Your task to perform on an android device: Go to network settings Image 0: 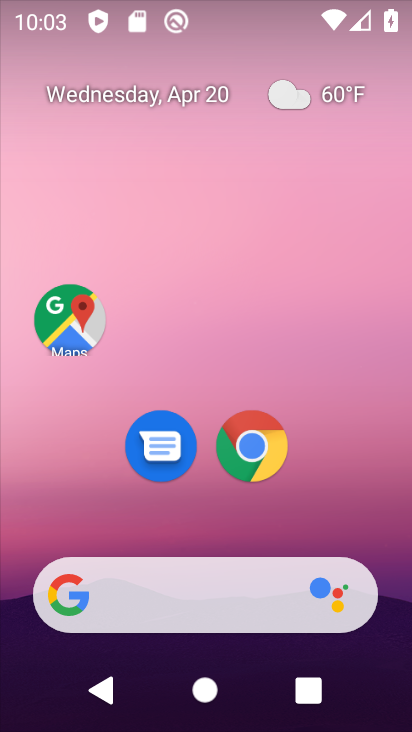
Step 0: drag from (373, 545) to (193, 11)
Your task to perform on an android device: Go to network settings Image 1: 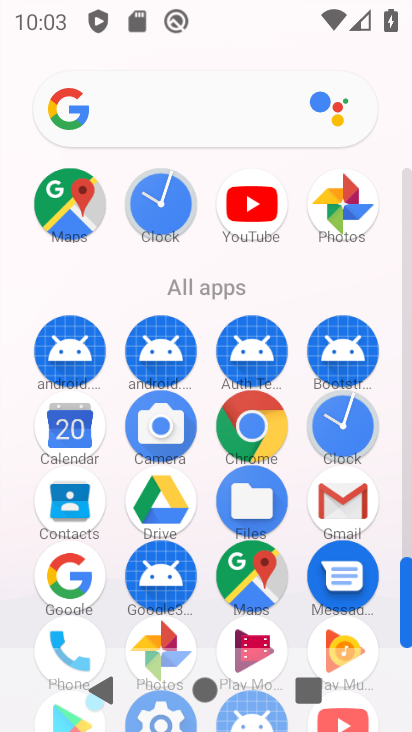
Step 1: drag from (12, 576) to (0, 240)
Your task to perform on an android device: Go to network settings Image 2: 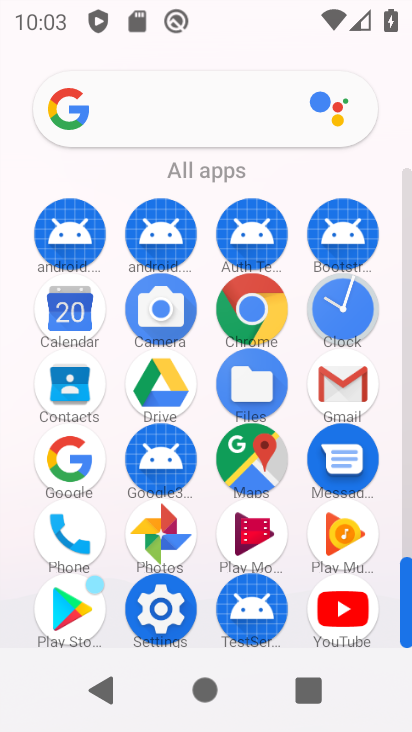
Step 2: click (161, 607)
Your task to perform on an android device: Go to network settings Image 3: 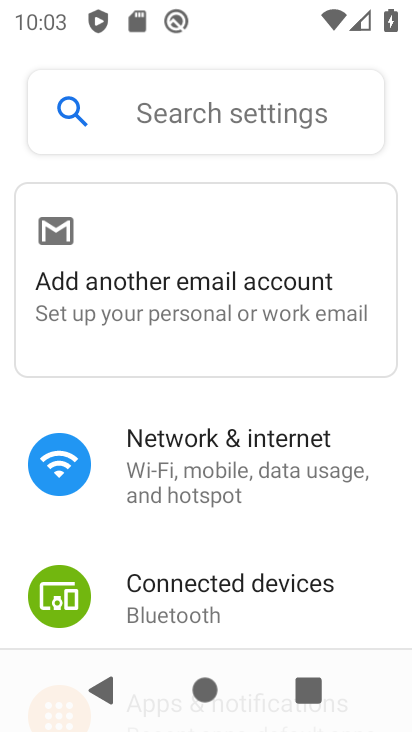
Step 3: click (248, 459)
Your task to perform on an android device: Go to network settings Image 4: 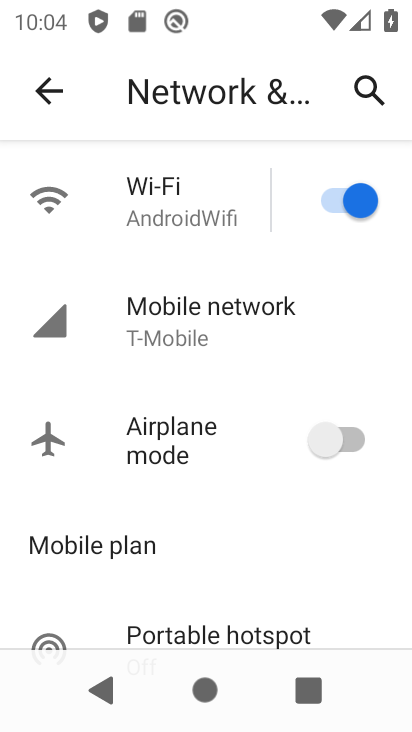
Step 4: drag from (202, 514) to (184, 192)
Your task to perform on an android device: Go to network settings Image 5: 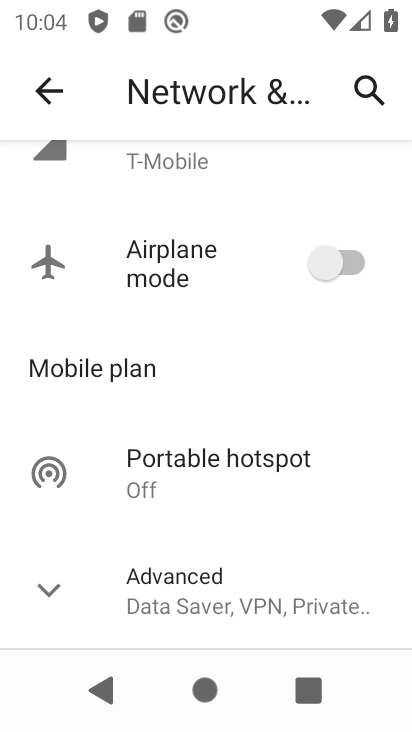
Step 5: drag from (218, 307) to (221, 553)
Your task to perform on an android device: Go to network settings Image 6: 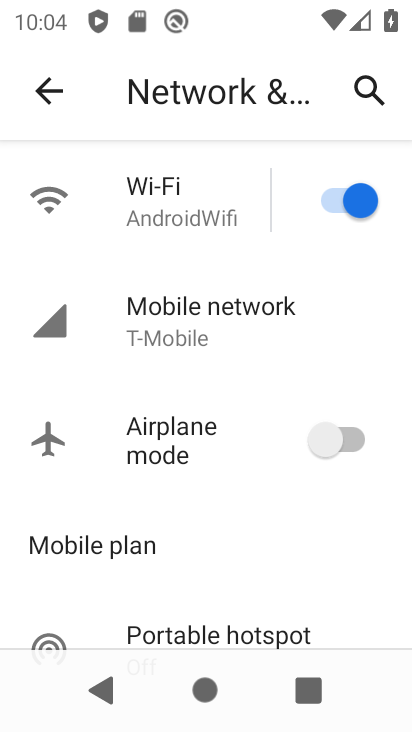
Step 6: drag from (206, 329) to (207, 418)
Your task to perform on an android device: Go to network settings Image 7: 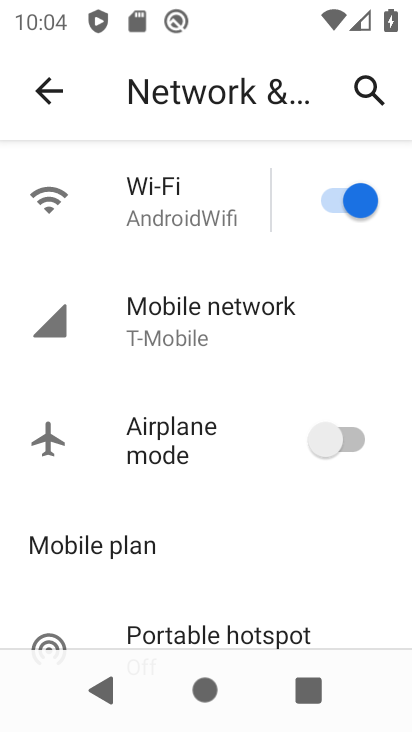
Step 7: click (166, 312)
Your task to perform on an android device: Go to network settings Image 8: 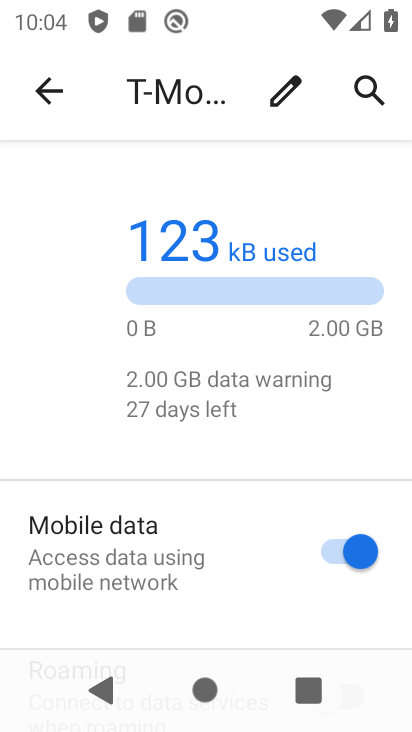
Step 8: task complete